Your task to perform on an android device: turn off javascript in the chrome app Image 0: 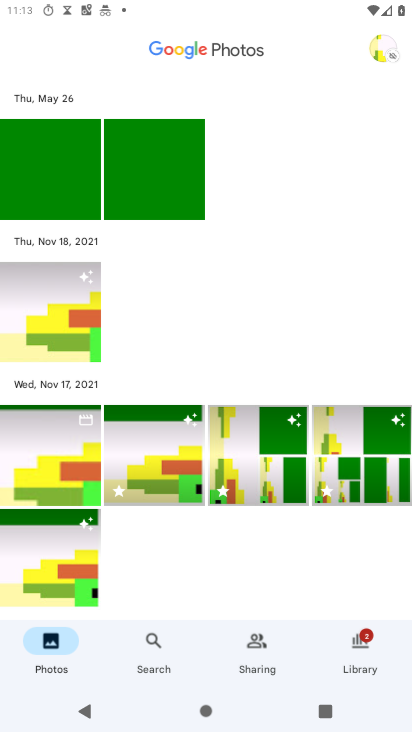
Step 0: drag from (308, 555) to (256, 196)
Your task to perform on an android device: turn off javascript in the chrome app Image 1: 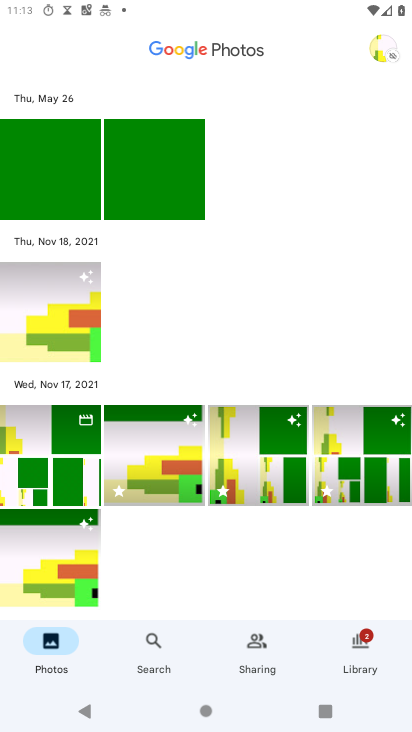
Step 1: press home button
Your task to perform on an android device: turn off javascript in the chrome app Image 2: 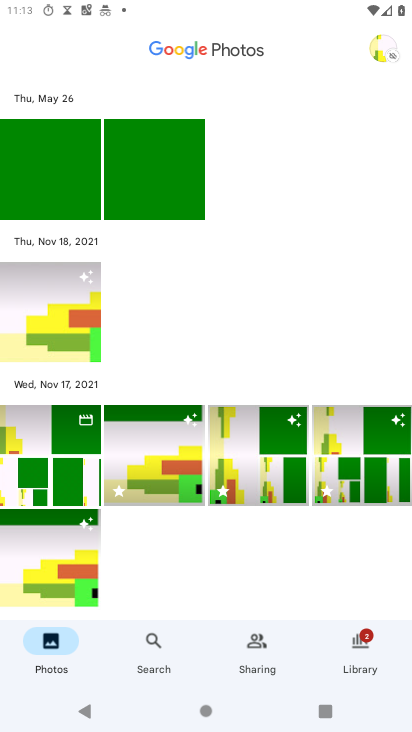
Step 2: press home button
Your task to perform on an android device: turn off javascript in the chrome app Image 3: 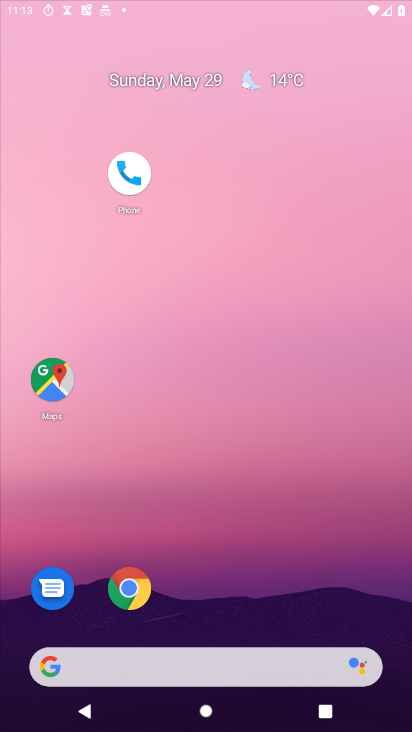
Step 3: press home button
Your task to perform on an android device: turn off javascript in the chrome app Image 4: 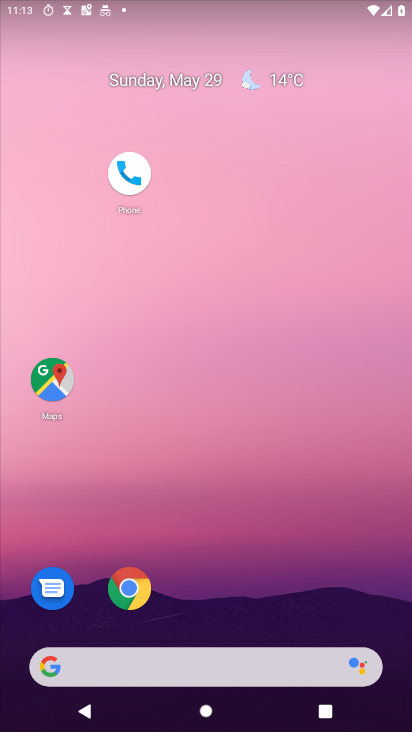
Step 4: drag from (247, 698) to (198, 229)
Your task to perform on an android device: turn off javascript in the chrome app Image 5: 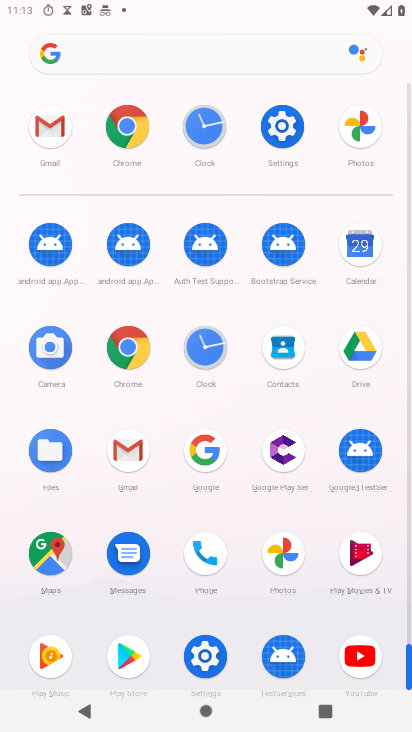
Step 5: click (123, 140)
Your task to perform on an android device: turn off javascript in the chrome app Image 6: 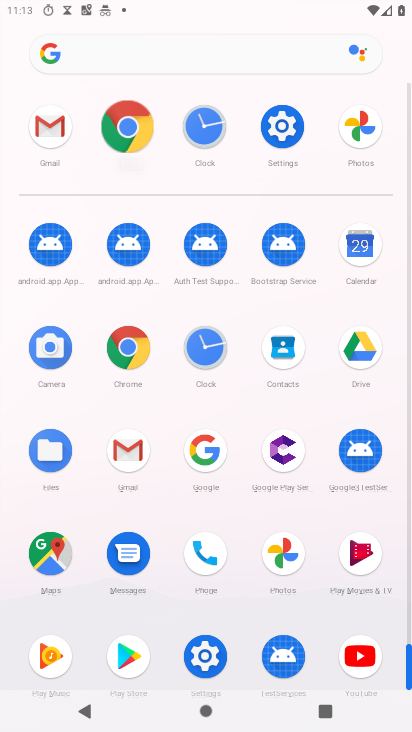
Step 6: click (123, 140)
Your task to perform on an android device: turn off javascript in the chrome app Image 7: 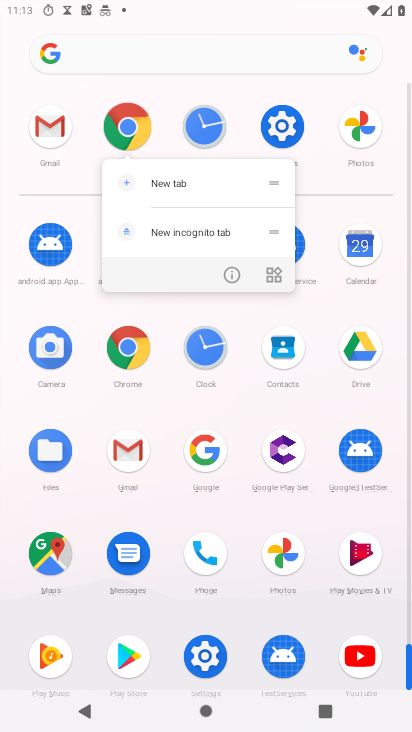
Step 7: click (123, 140)
Your task to perform on an android device: turn off javascript in the chrome app Image 8: 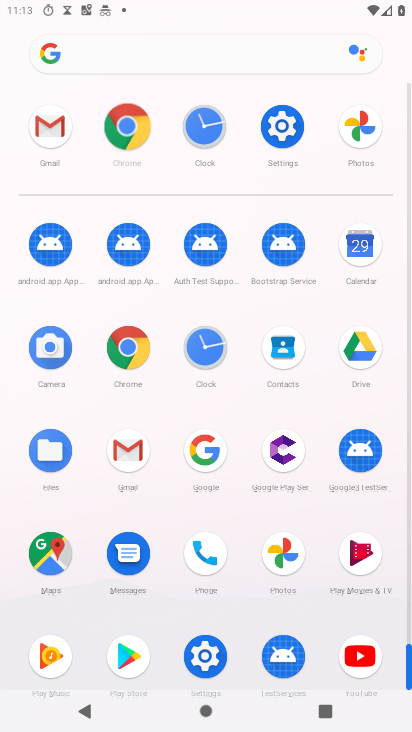
Step 8: click (141, 167)
Your task to perform on an android device: turn off javascript in the chrome app Image 9: 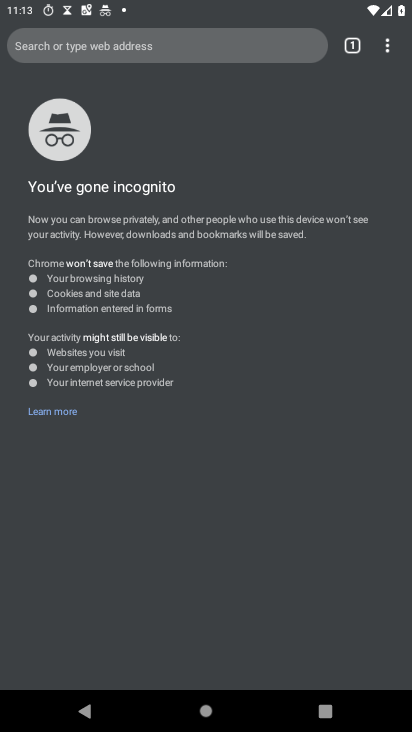
Step 9: click (389, 53)
Your task to perform on an android device: turn off javascript in the chrome app Image 10: 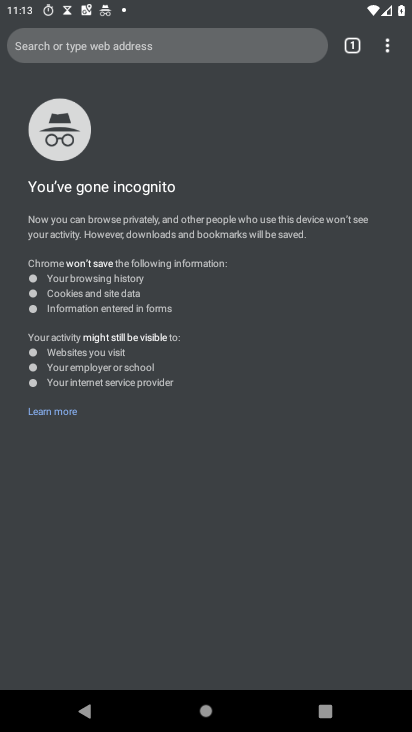
Step 10: drag from (392, 53) to (210, 343)
Your task to perform on an android device: turn off javascript in the chrome app Image 11: 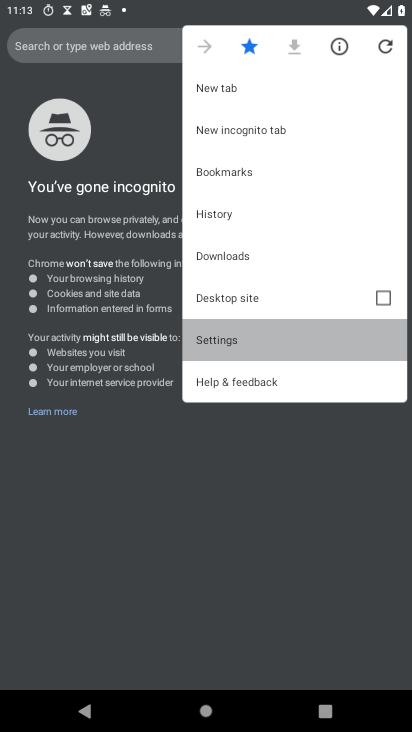
Step 11: click (210, 343)
Your task to perform on an android device: turn off javascript in the chrome app Image 12: 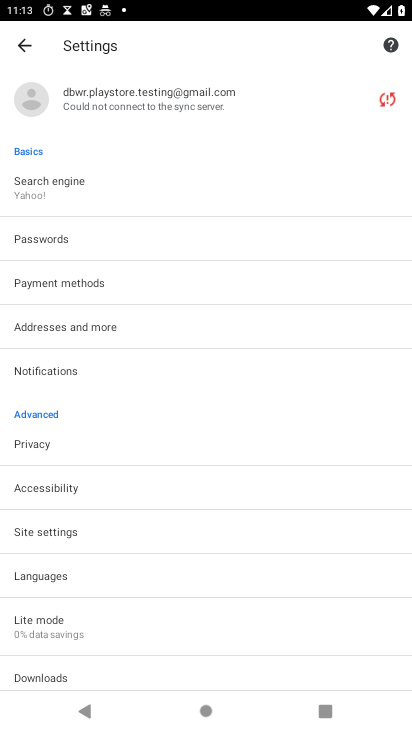
Step 12: drag from (65, 494) to (59, 253)
Your task to perform on an android device: turn off javascript in the chrome app Image 13: 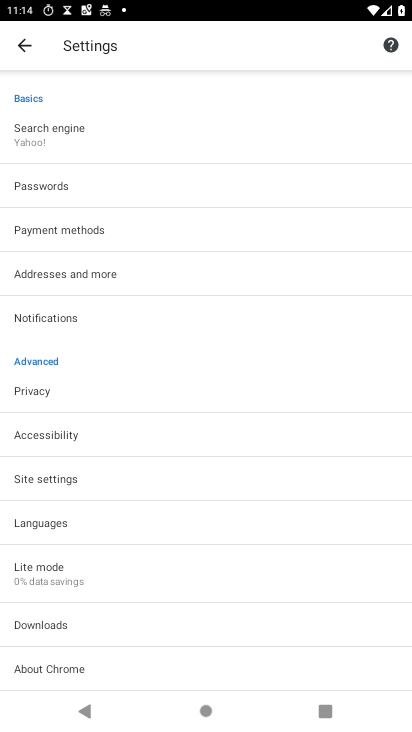
Step 13: click (37, 469)
Your task to perform on an android device: turn off javascript in the chrome app Image 14: 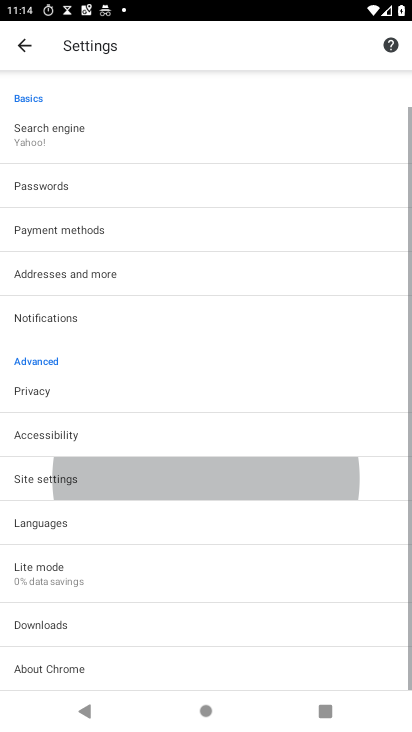
Step 14: click (40, 483)
Your task to perform on an android device: turn off javascript in the chrome app Image 15: 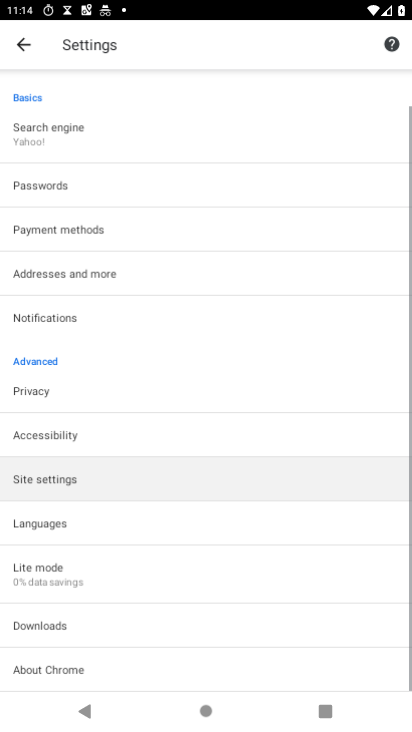
Step 15: click (40, 484)
Your task to perform on an android device: turn off javascript in the chrome app Image 16: 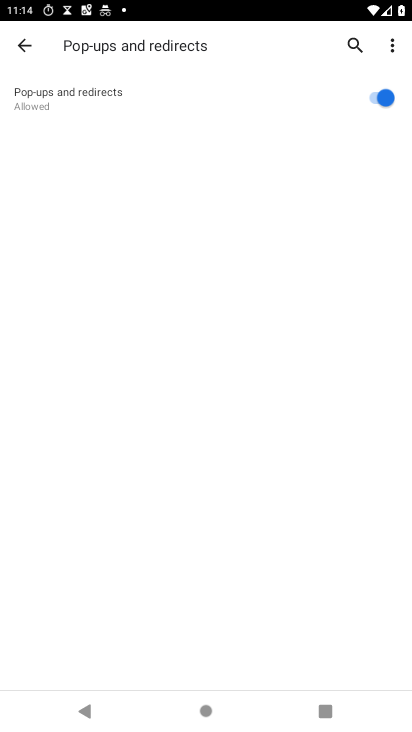
Step 16: click (17, 40)
Your task to perform on an android device: turn off javascript in the chrome app Image 17: 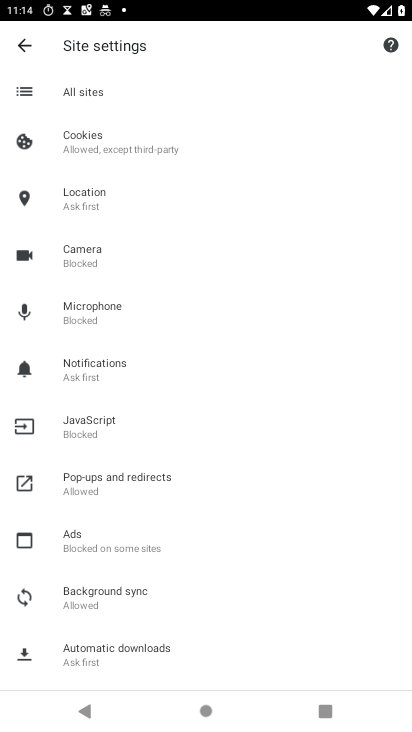
Step 17: click (86, 425)
Your task to perform on an android device: turn off javascript in the chrome app Image 18: 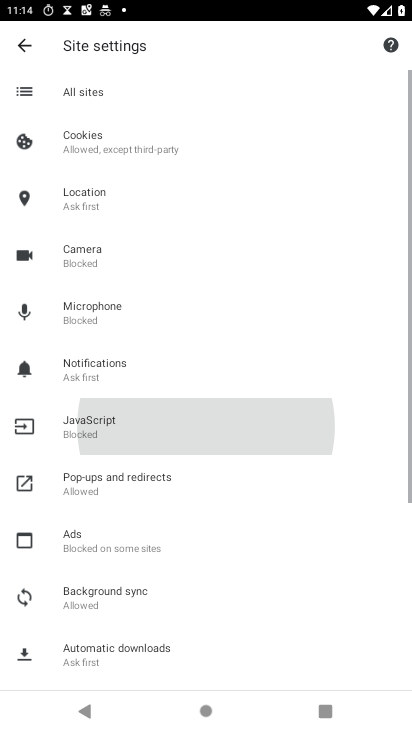
Step 18: click (85, 426)
Your task to perform on an android device: turn off javascript in the chrome app Image 19: 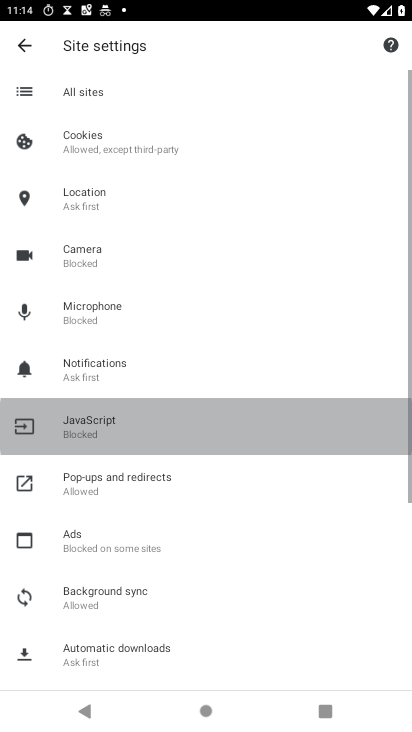
Step 19: click (85, 426)
Your task to perform on an android device: turn off javascript in the chrome app Image 20: 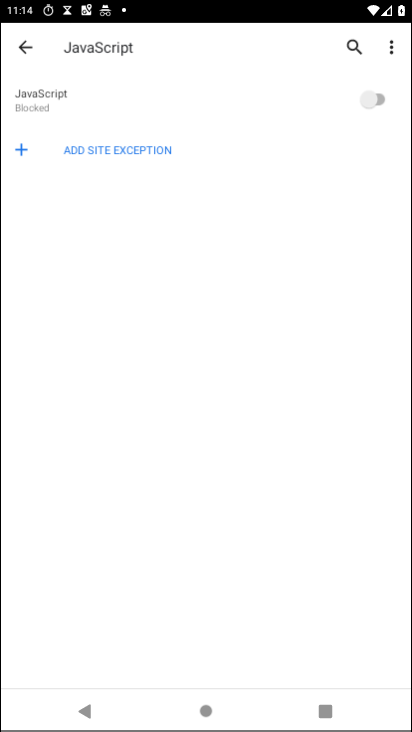
Step 20: click (90, 426)
Your task to perform on an android device: turn off javascript in the chrome app Image 21: 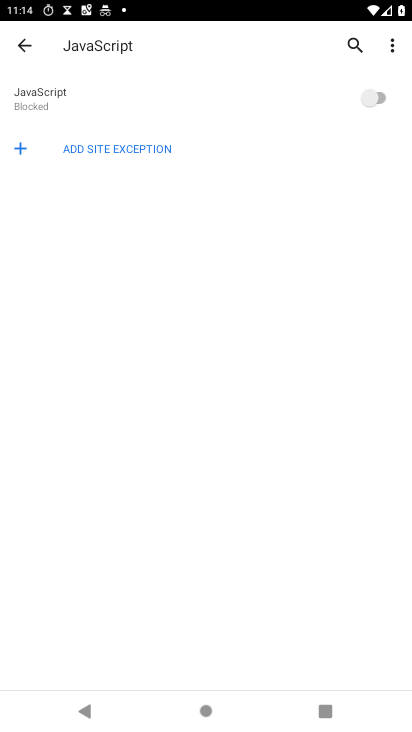
Step 21: task complete